Your task to perform on an android device: Open notification settings Image 0: 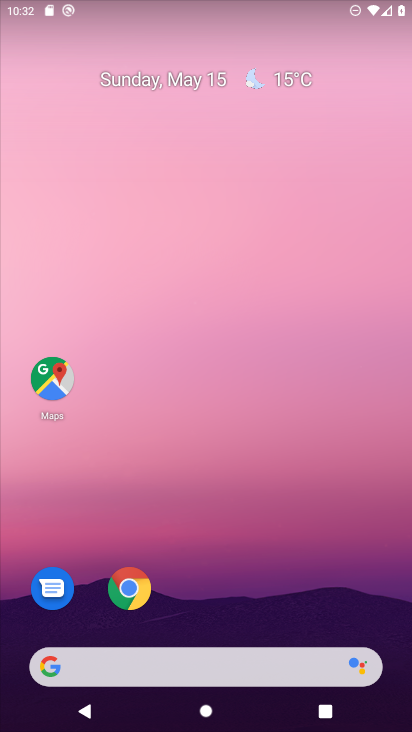
Step 0: drag from (226, 569) to (253, 191)
Your task to perform on an android device: Open notification settings Image 1: 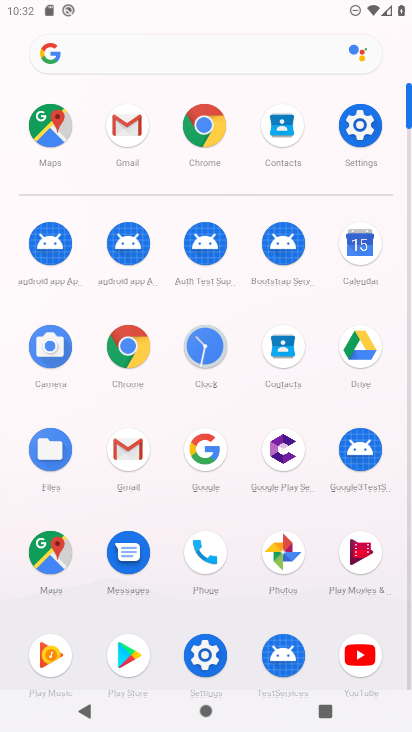
Step 1: click (362, 132)
Your task to perform on an android device: Open notification settings Image 2: 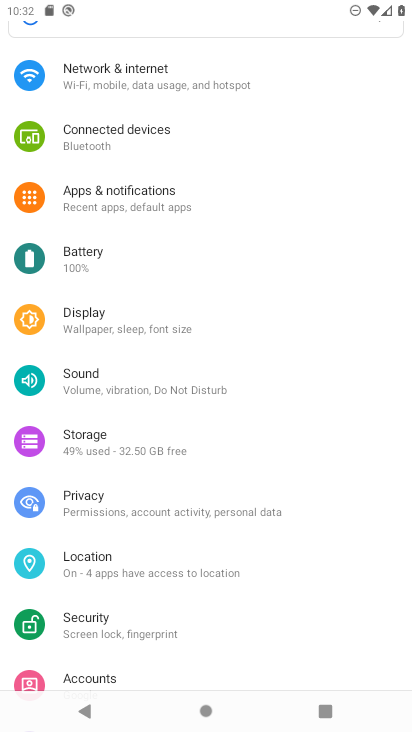
Step 2: click (136, 197)
Your task to perform on an android device: Open notification settings Image 3: 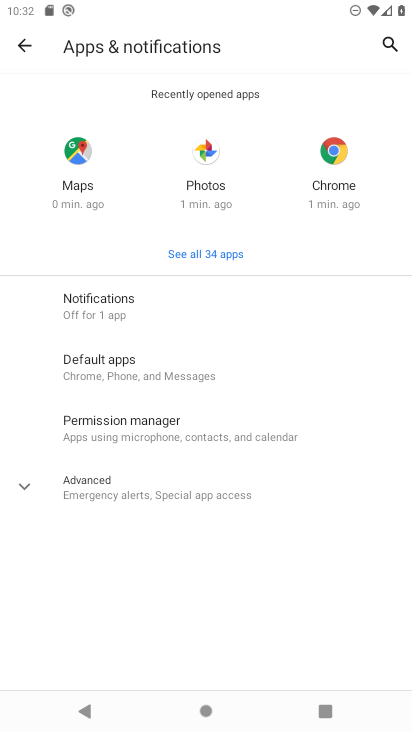
Step 3: click (108, 313)
Your task to perform on an android device: Open notification settings Image 4: 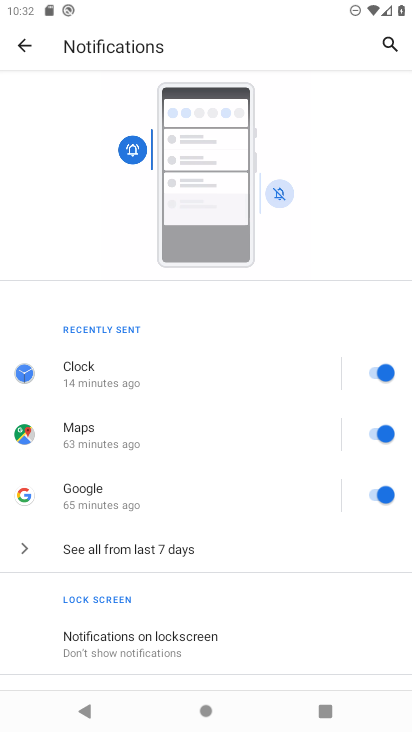
Step 4: task complete